Your task to perform on an android device: Go to Google maps Image 0: 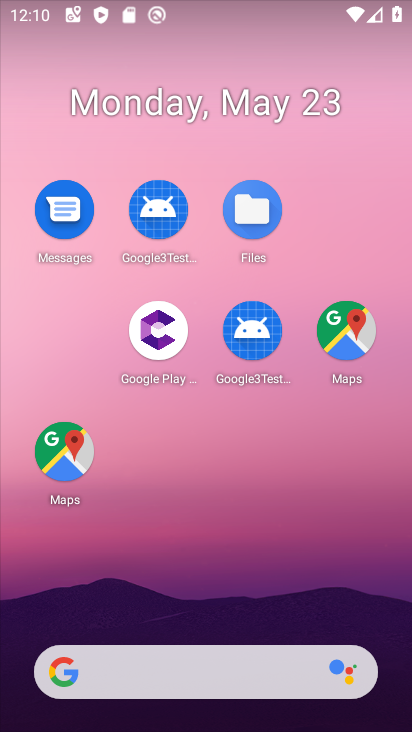
Step 0: drag from (229, 623) to (212, 117)
Your task to perform on an android device: Go to Google maps Image 1: 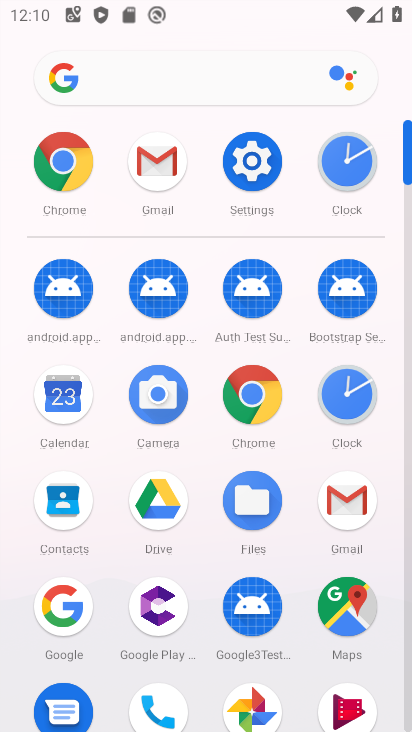
Step 1: click (351, 589)
Your task to perform on an android device: Go to Google maps Image 2: 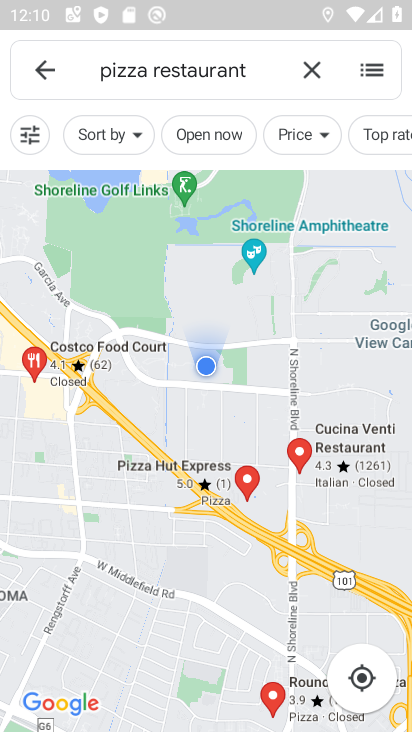
Step 2: task complete